Your task to perform on an android device: clear history in the chrome app Image 0: 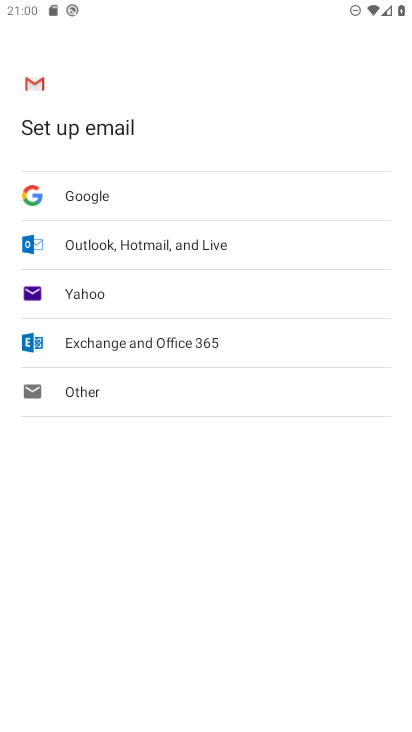
Step 0: press home button
Your task to perform on an android device: clear history in the chrome app Image 1: 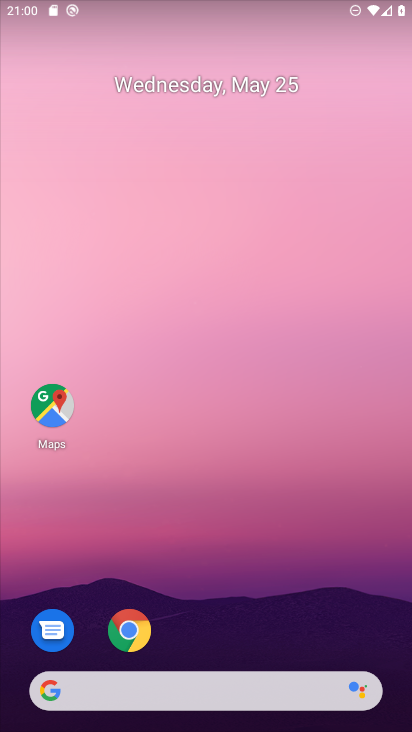
Step 1: click (131, 631)
Your task to perform on an android device: clear history in the chrome app Image 2: 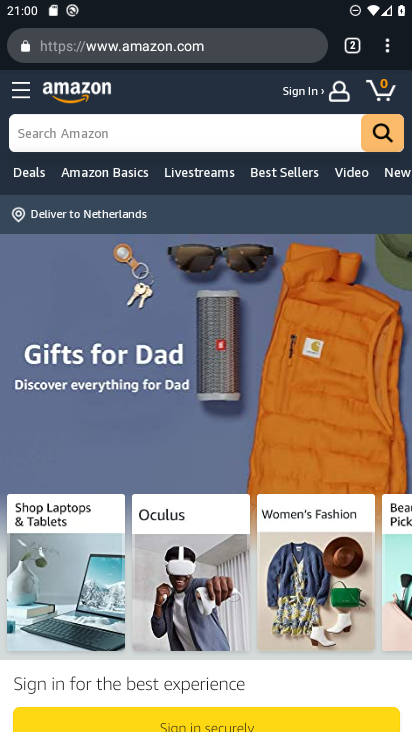
Step 2: click (382, 47)
Your task to perform on an android device: clear history in the chrome app Image 3: 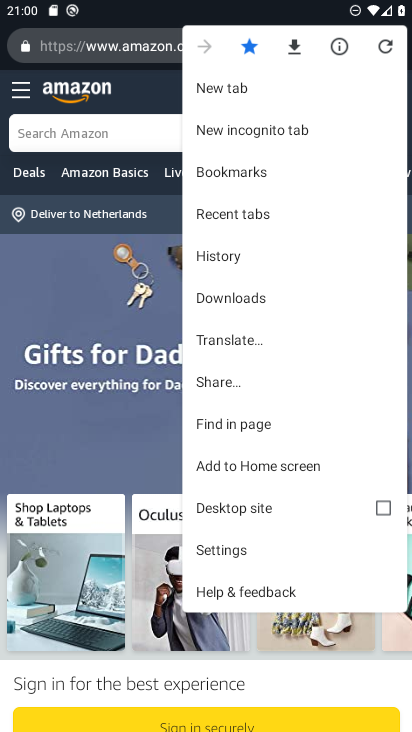
Step 3: click (239, 248)
Your task to perform on an android device: clear history in the chrome app Image 4: 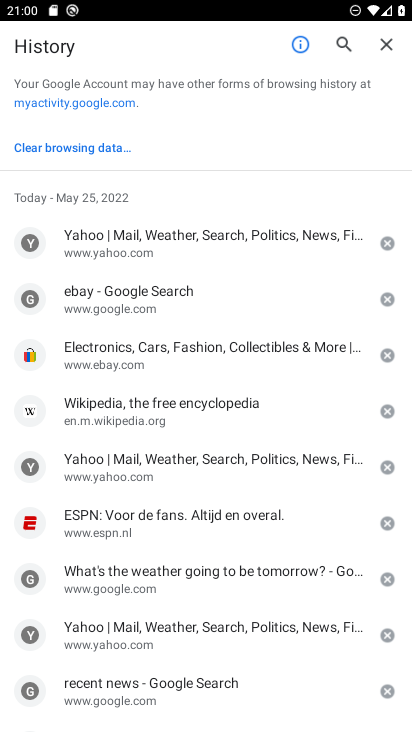
Step 4: click (73, 138)
Your task to perform on an android device: clear history in the chrome app Image 5: 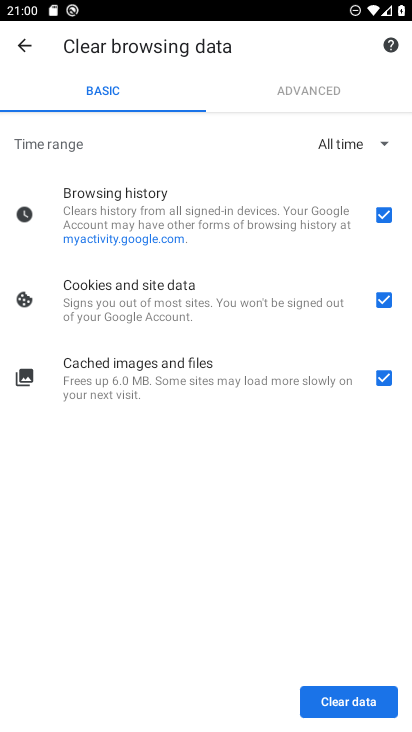
Step 5: click (383, 294)
Your task to perform on an android device: clear history in the chrome app Image 6: 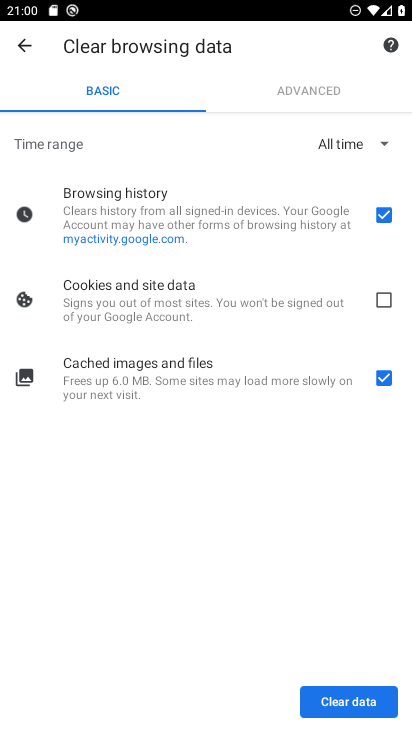
Step 6: click (388, 376)
Your task to perform on an android device: clear history in the chrome app Image 7: 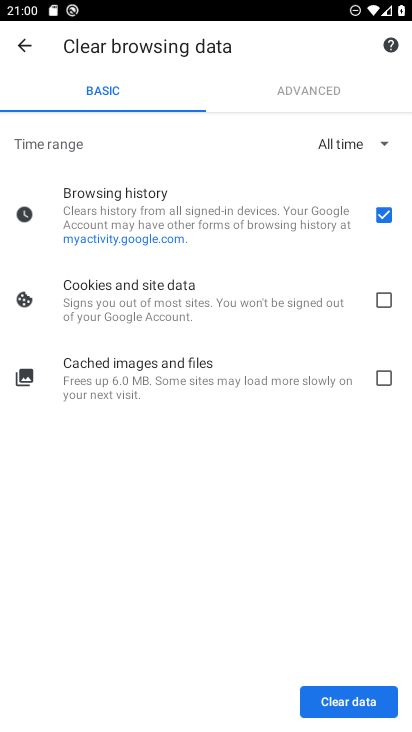
Step 7: click (323, 703)
Your task to perform on an android device: clear history in the chrome app Image 8: 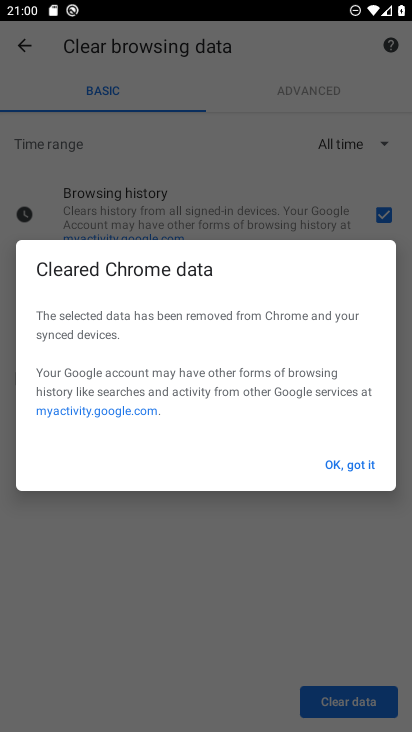
Step 8: click (363, 469)
Your task to perform on an android device: clear history in the chrome app Image 9: 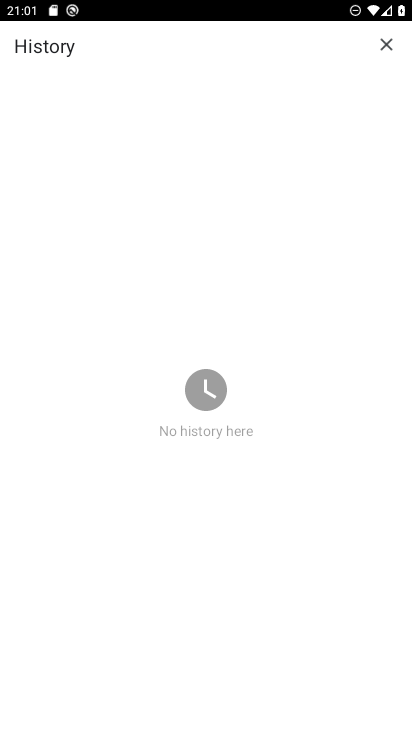
Step 9: task complete